Your task to perform on an android device: Open accessibility settings Image 0: 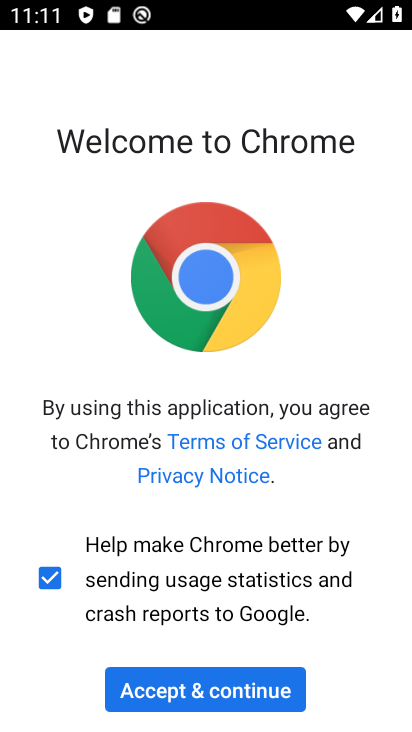
Step 0: press home button
Your task to perform on an android device: Open accessibility settings Image 1: 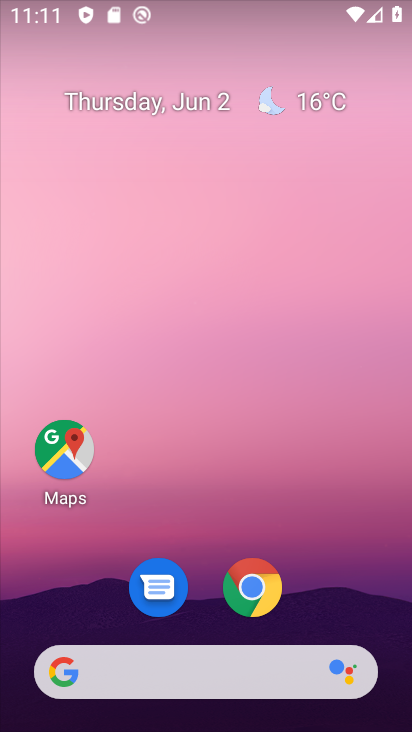
Step 1: drag from (185, 647) to (359, 552)
Your task to perform on an android device: Open accessibility settings Image 2: 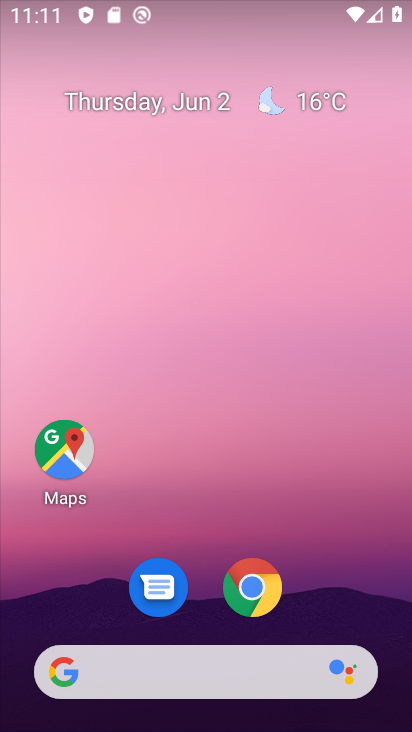
Step 2: drag from (176, 639) to (311, 3)
Your task to perform on an android device: Open accessibility settings Image 3: 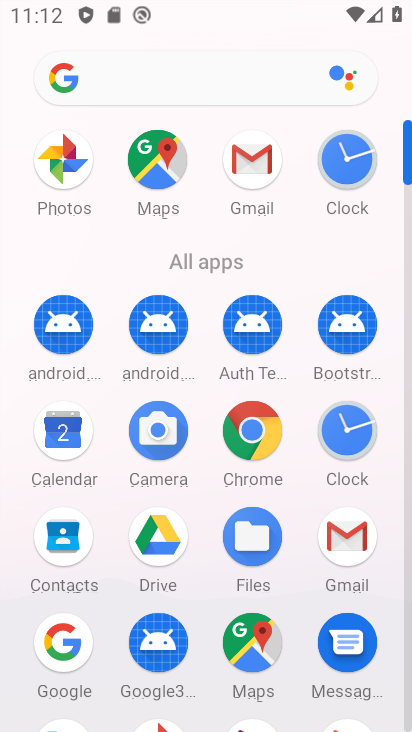
Step 3: drag from (203, 609) to (252, 32)
Your task to perform on an android device: Open accessibility settings Image 4: 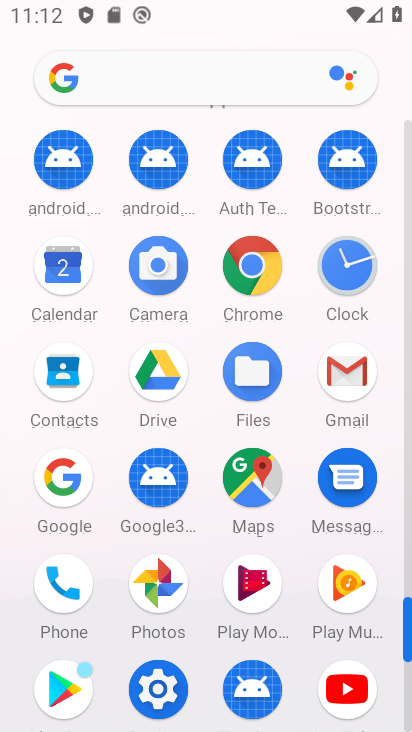
Step 4: click (152, 663)
Your task to perform on an android device: Open accessibility settings Image 5: 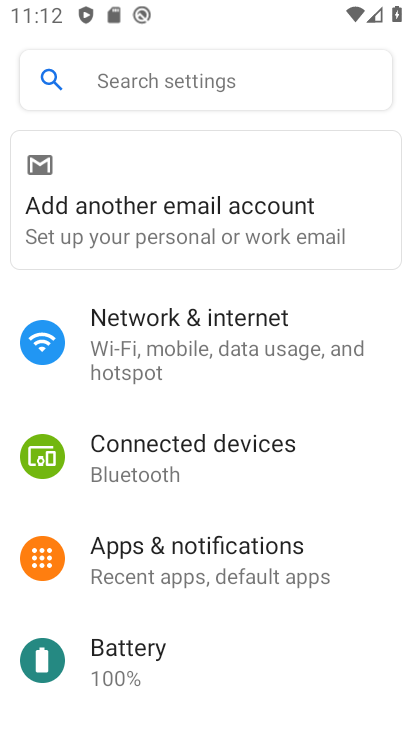
Step 5: drag from (208, 595) to (211, 57)
Your task to perform on an android device: Open accessibility settings Image 6: 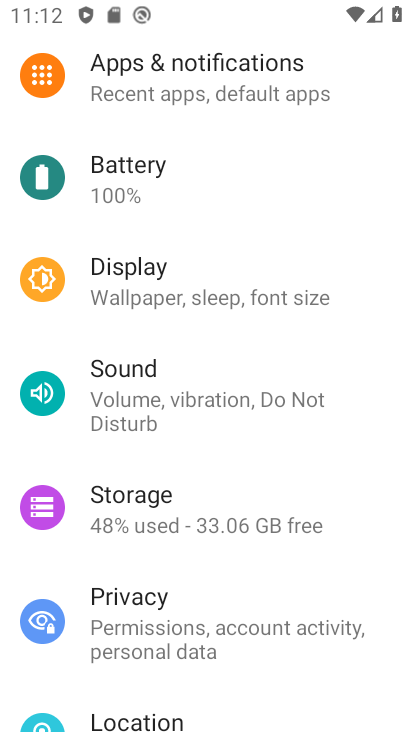
Step 6: drag from (199, 582) to (203, 123)
Your task to perform on an android device: Open accessibility settings Image 7: 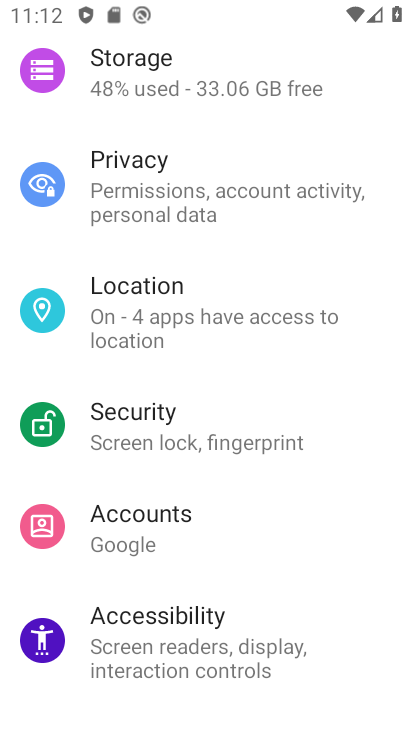
Step 7: click (170, 665)
Your task to perform on an android device: Open accessibility settings Image 8: 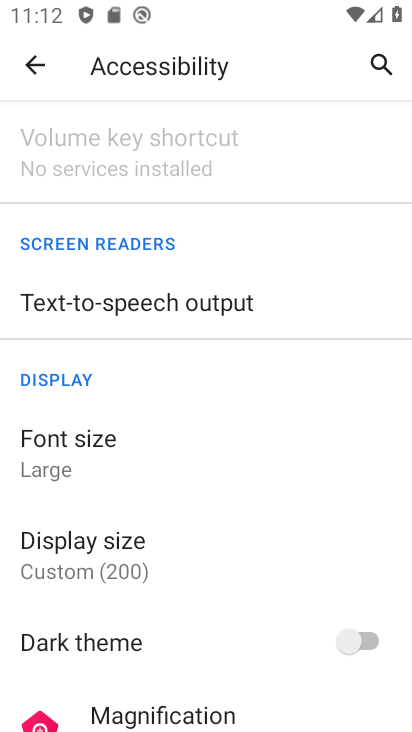
Step 8: task complete